Your task to perform on an android device: Open privacy settings Image 0: 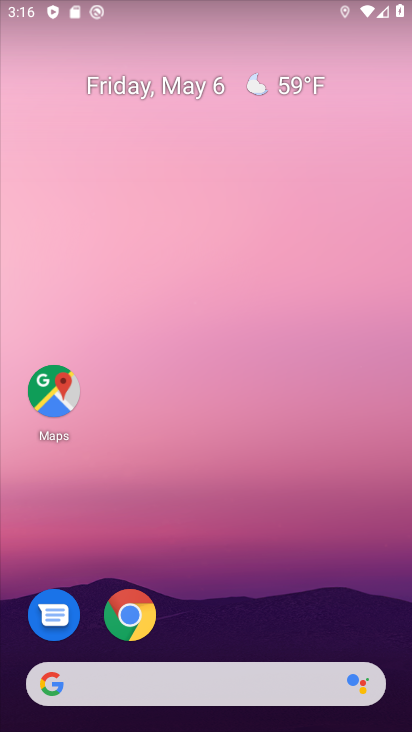
Step 0: drag from (363, 637) to (394, 32)
Your task to perform on an android device: Open privacy settings Image 1: 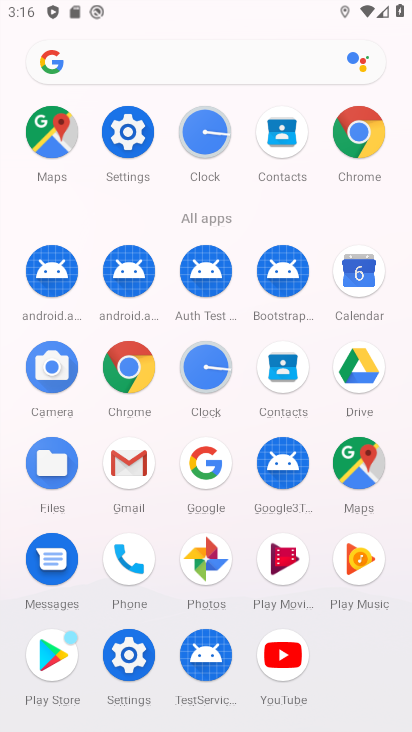
Step 1: click (124, 143)
Your task to perform on an android device: Open privacy settings Image 2: 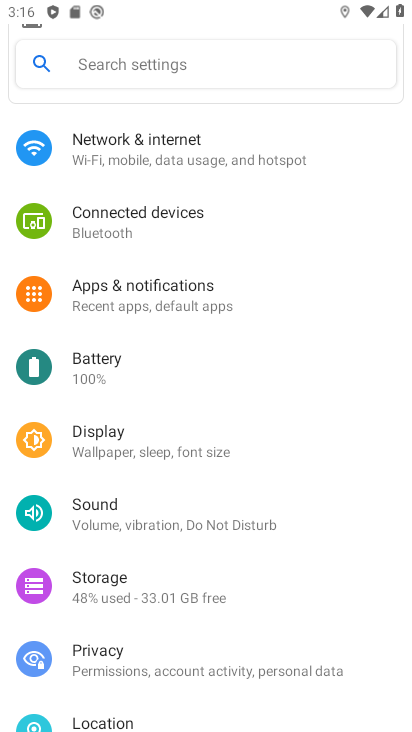
Step 2: click (97, 657)
Your task to perform on an android device: Open privacy settings Image 3: 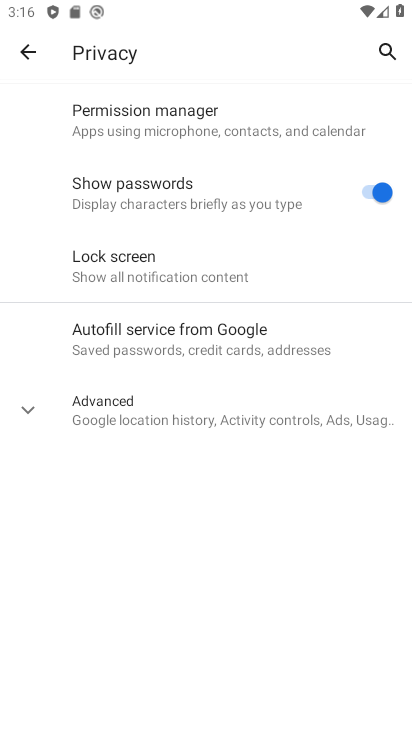
Step 3: task complete